Your task to perform on an android device: clear history in the chrome app Image 0: 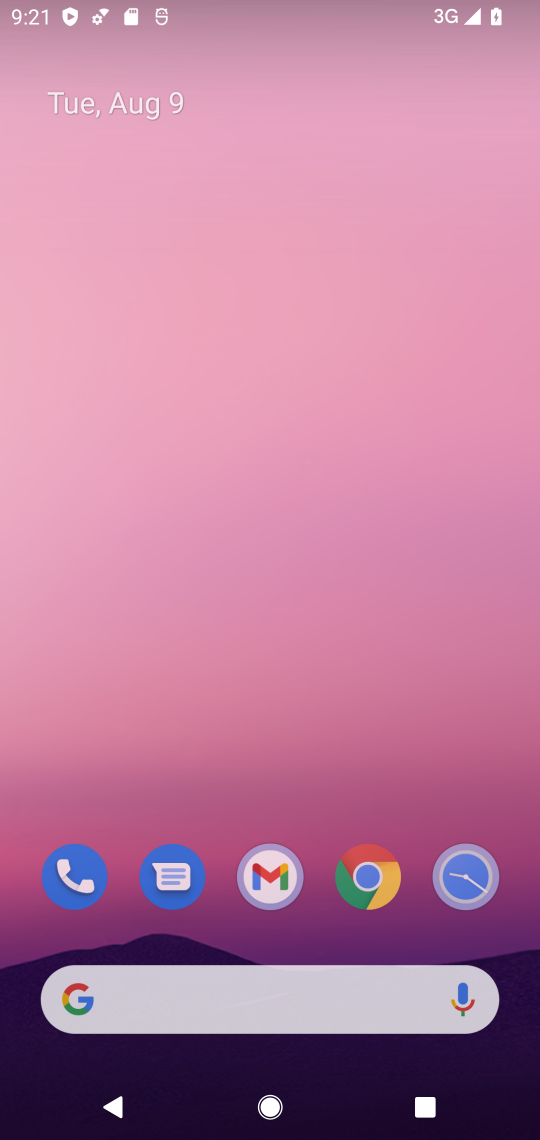
Step 0: press home button
Your task to perform on an android device: clear history in the chrome app Image 1: 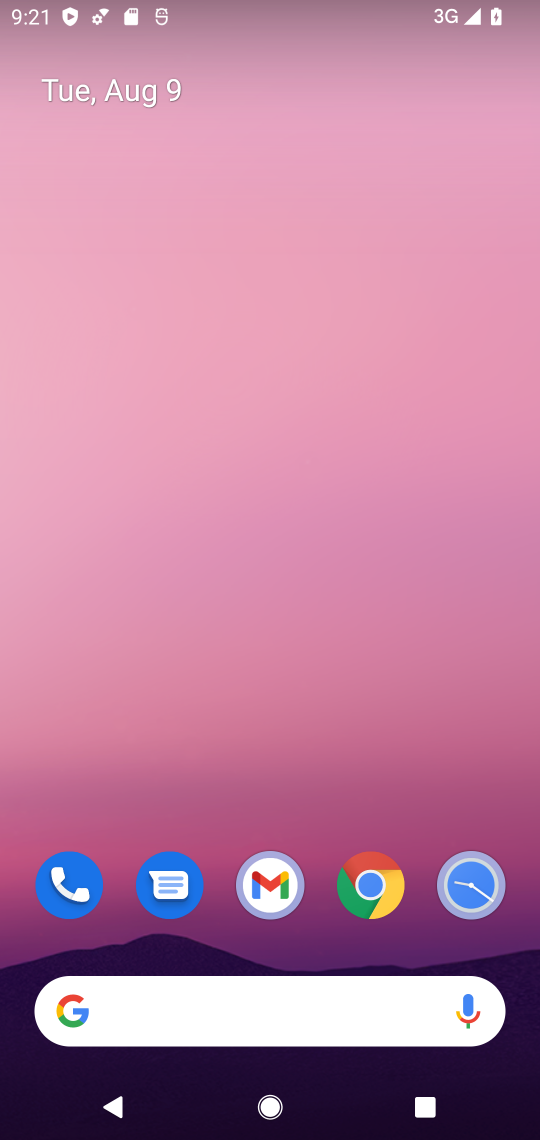
Step 1: click (369, 875)
Your task to perform on an android device: clear history in the chrome app Image 2: 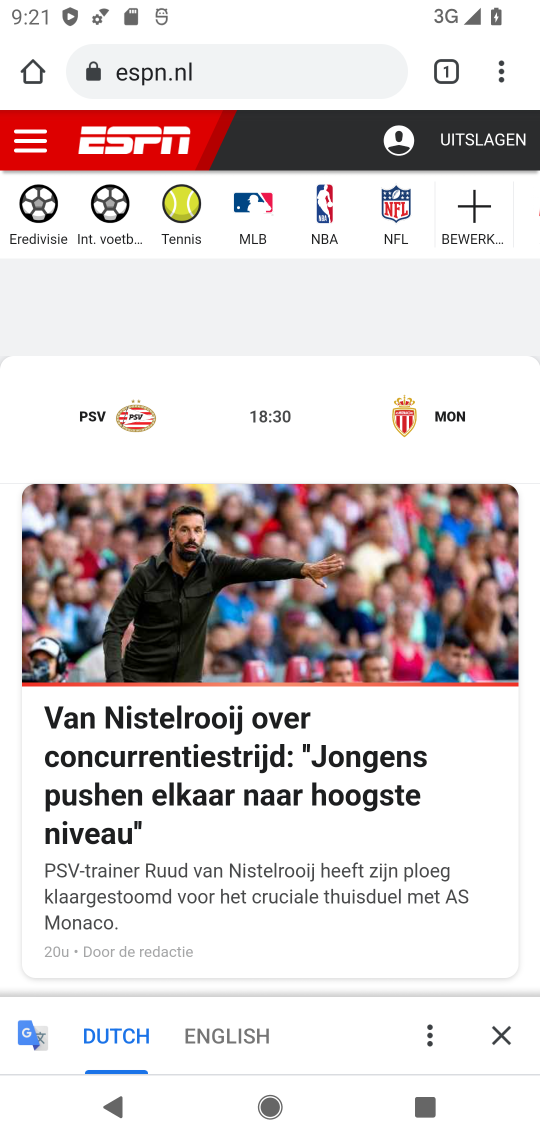
Step 2: click (495, 67)
Your task to perform on an android device: clear history in the chrome app Image 3: 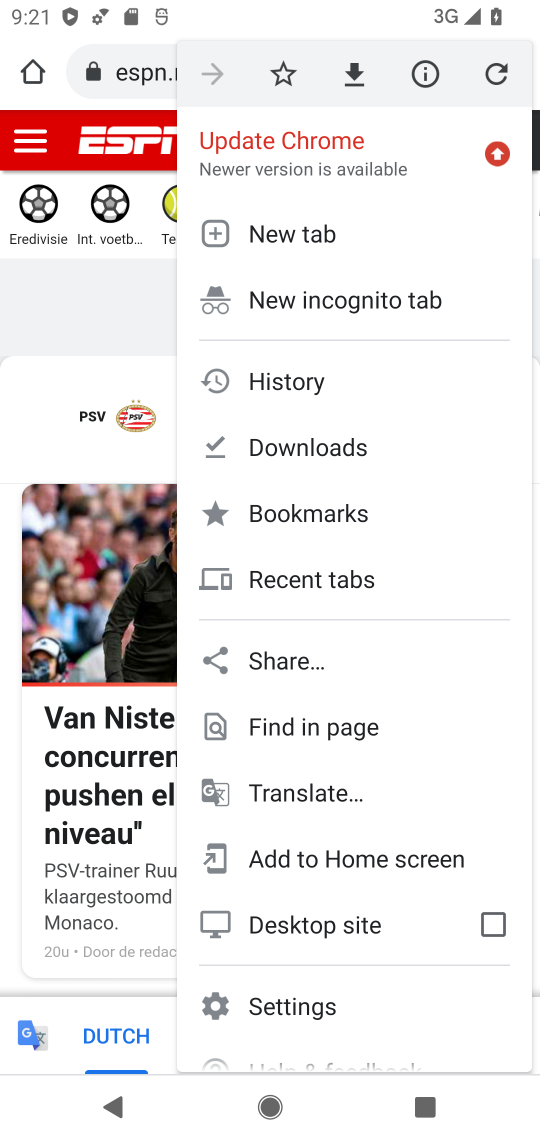
Step 3: click (310, 369)
Your task to perform on an android device: clear history in the chrome app Image 4: 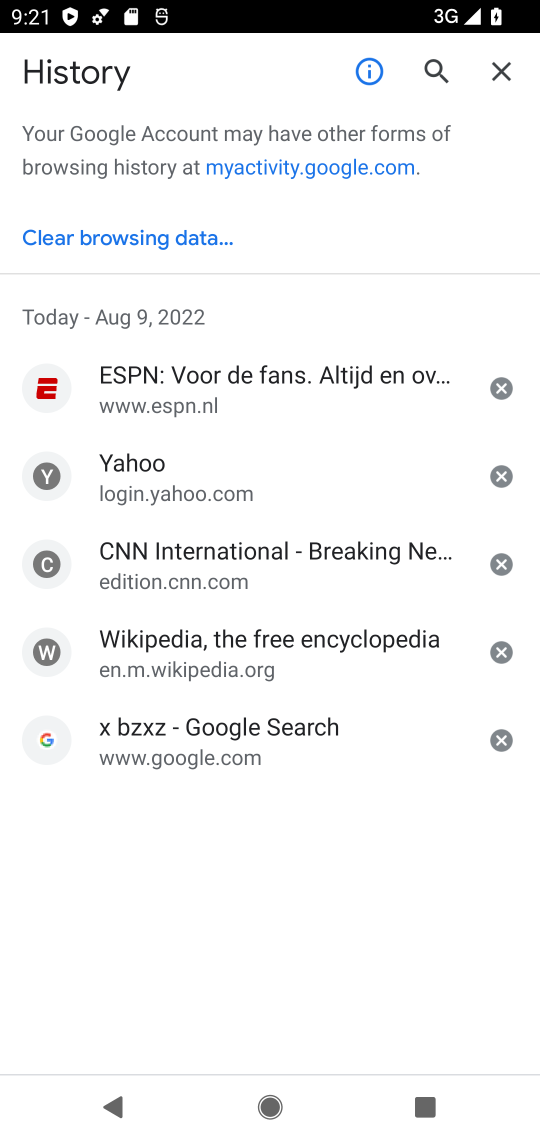
Step 4: click (118, 229)
Your task to perform on an android device: clear history in the chrome app Image 5: 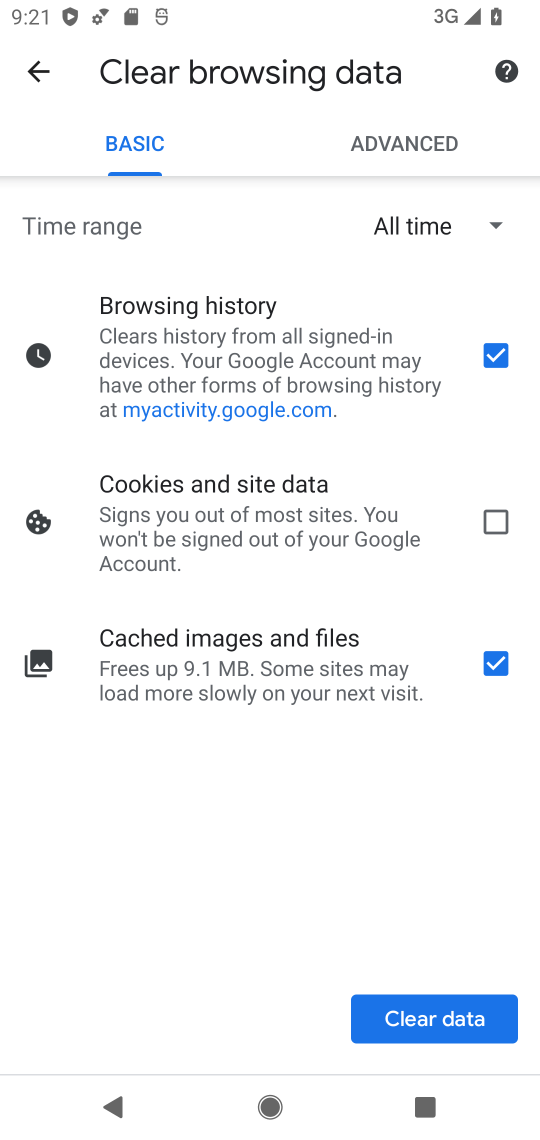
Step 5: click (491, 524)
Your task to perform on an android device: clear history in the chrome app Image 6: 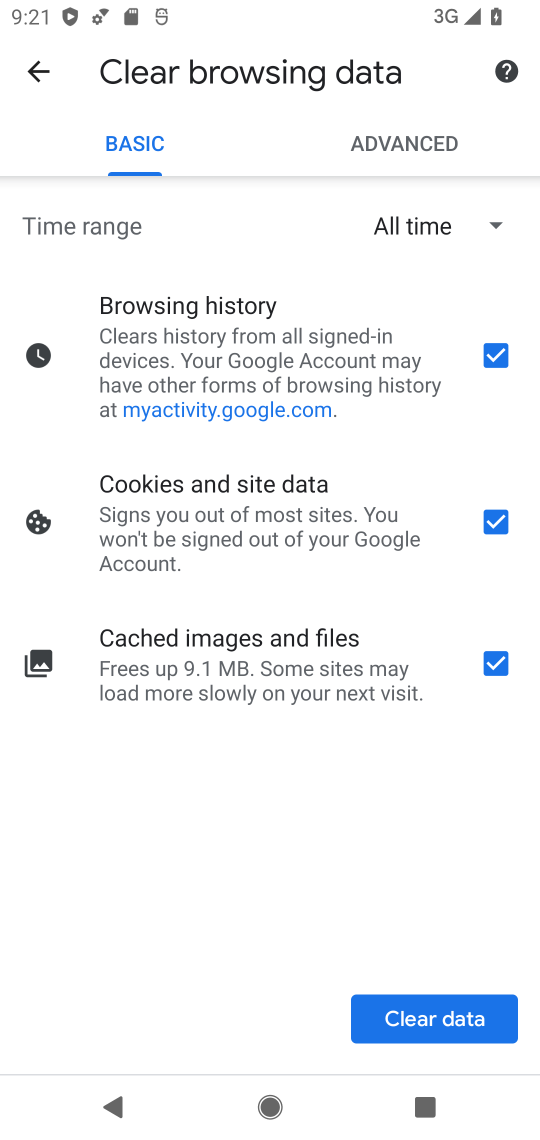
Step 6: click (431, 1009)
Your task to perform on an android device: clear history in the chrome app Image 7: 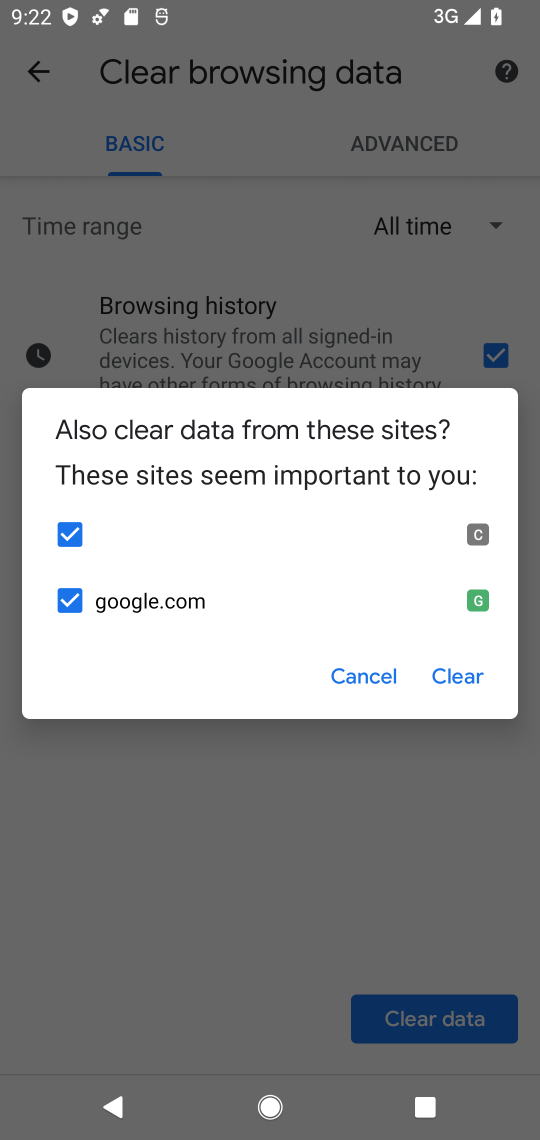
Step 7: click (464, 669)
Your task to perform on an android device: clear history in the chrome app Image 8: 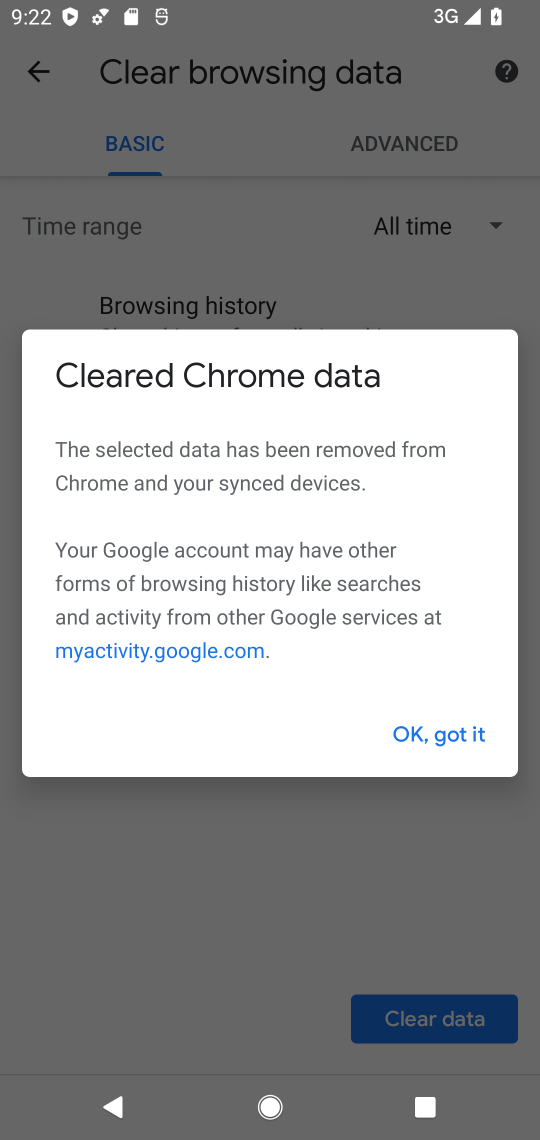
Step 8: click (471, 732)
Your task to perform on an android device: clear history in the chrome app Image 9: 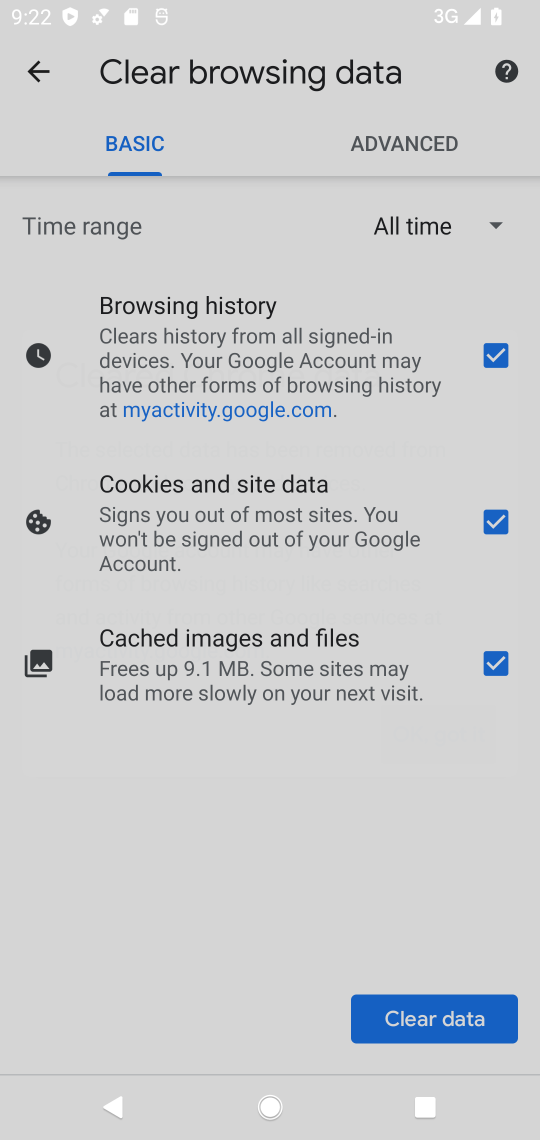
Step 9: task complete